Your task to perform on an android device: Go to network settings Image 0: 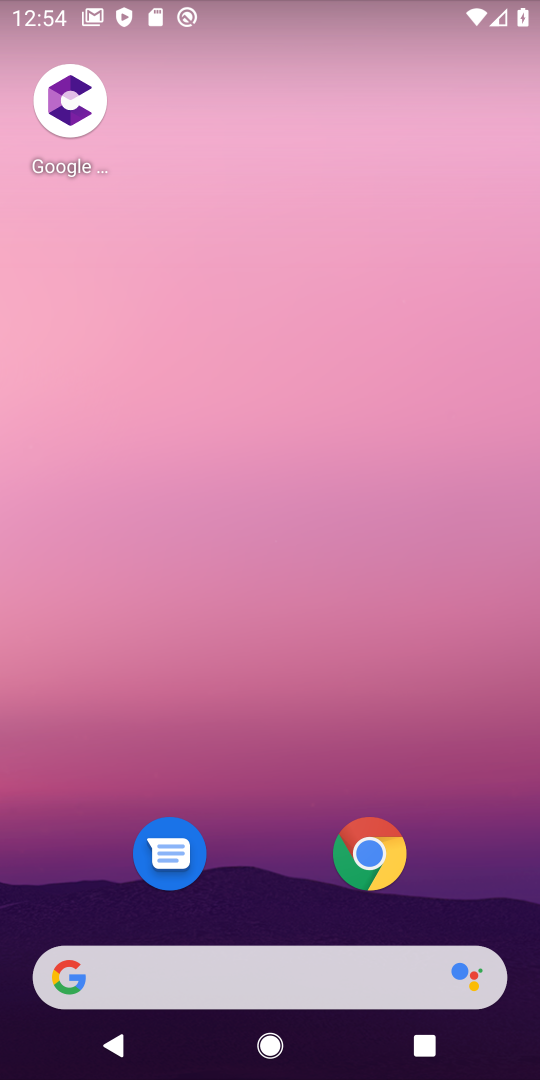
Step 0: drag from (284, 946) to (338, 150)
Your task to perform on an android device: Go to network settings Image 1: 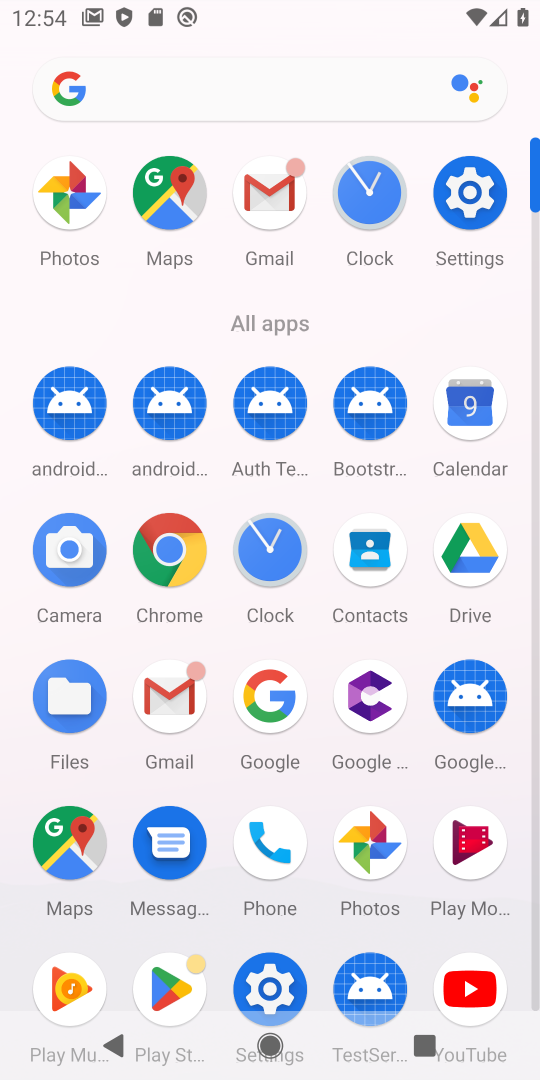
Step 1: click (462, 280)
Your task to perform on an android device: Go to network settings Image 2: 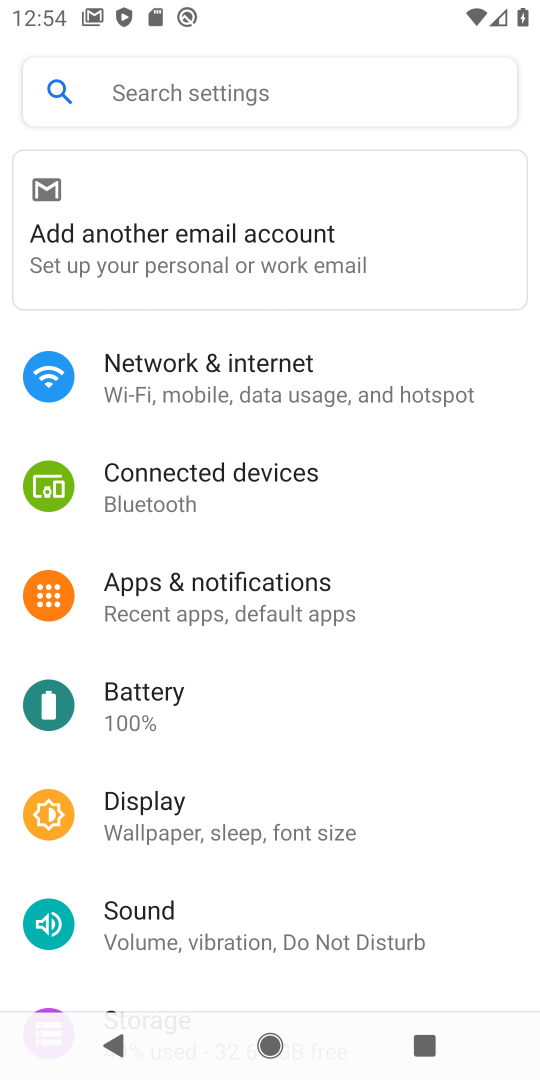
Step 2: click (125, 363)
Your task to perform on an android device: Go to network settings Image 3: 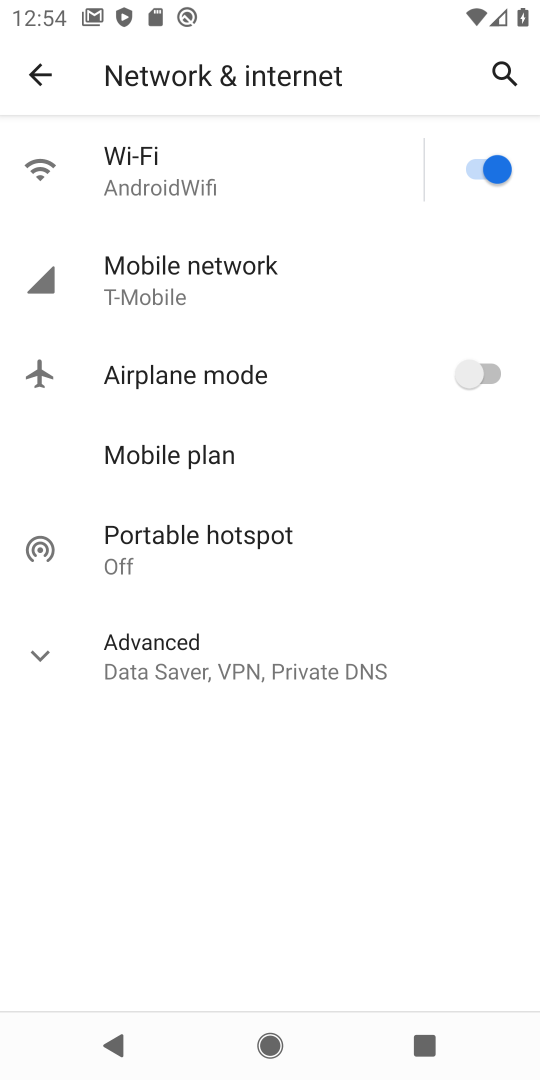
Step 3: task complete